Your task to perform on an android device: Go to Amazon Image 0: 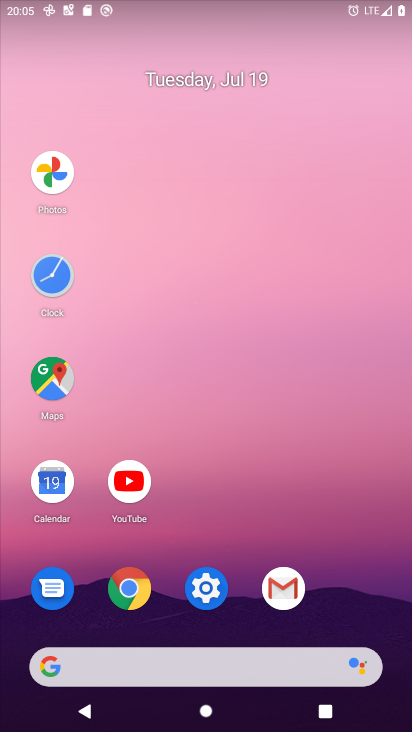
Step 0: click (127, 591)
Your task to perform on an android device: Go to Amazon Image 1: 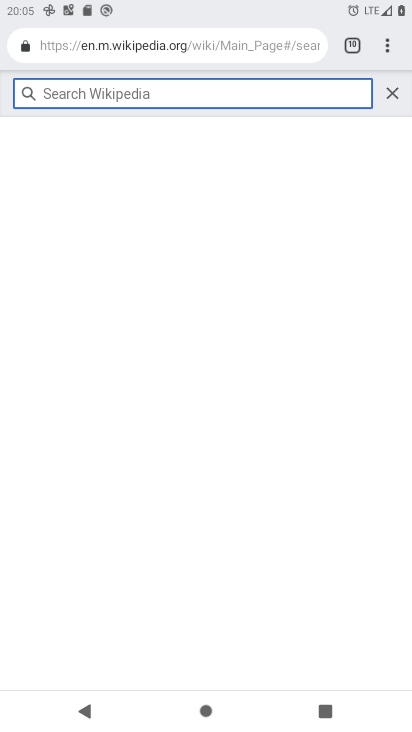
Step 1: click (389, 45)
Your task to perform on an android device: Go to Amazon Image 2: 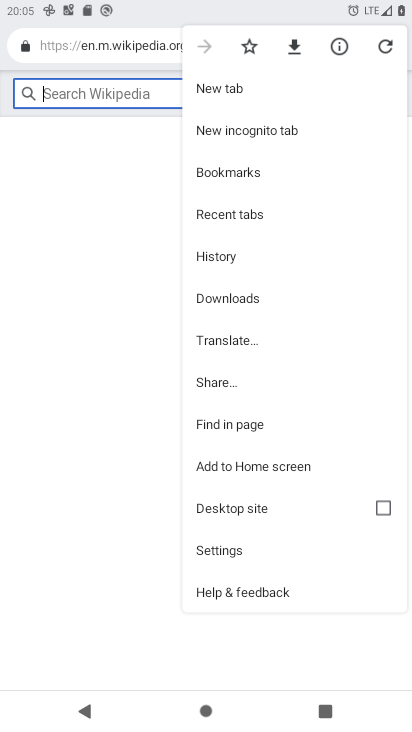
Step 2: click (212, 87)
Your task to perform on an android device: Go to Amazon Image 3: 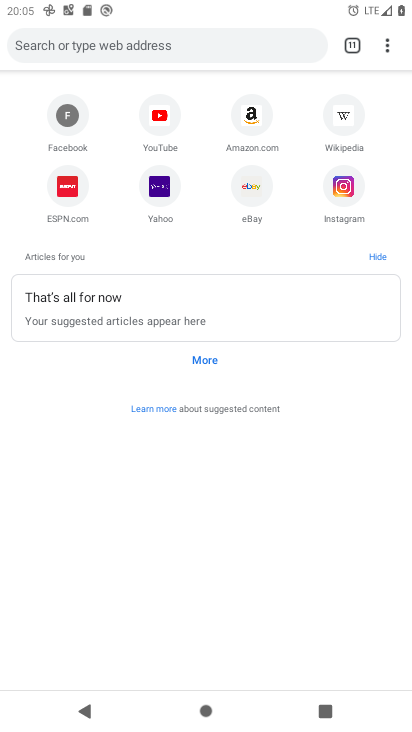
Step 3: click (247, 113)
Your task to perform on an android device: Go to Amazon Image 4: 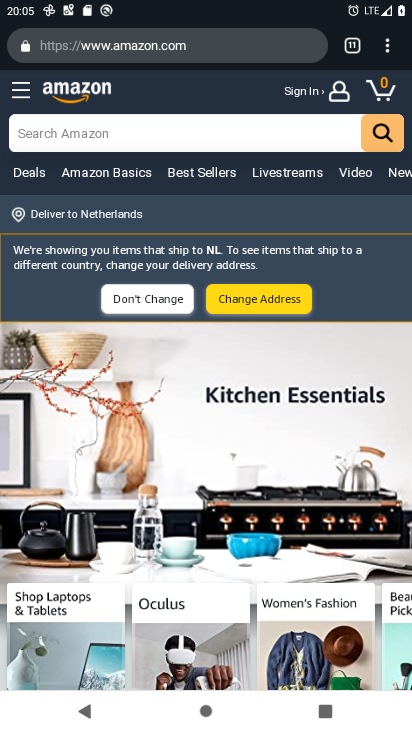
Step 4: task complete